Your task to perform on an android device: Show me productivity apps on the Play Store Image 0: 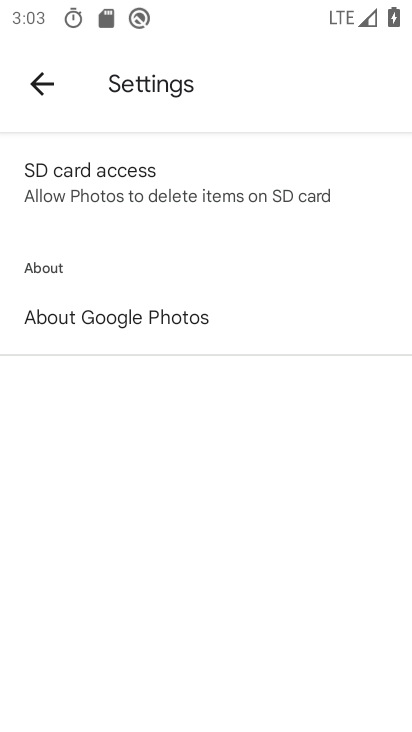
Step 0: press home button
Your task to perform on an android device: Show me productivity apps on the Play Store Image 1: 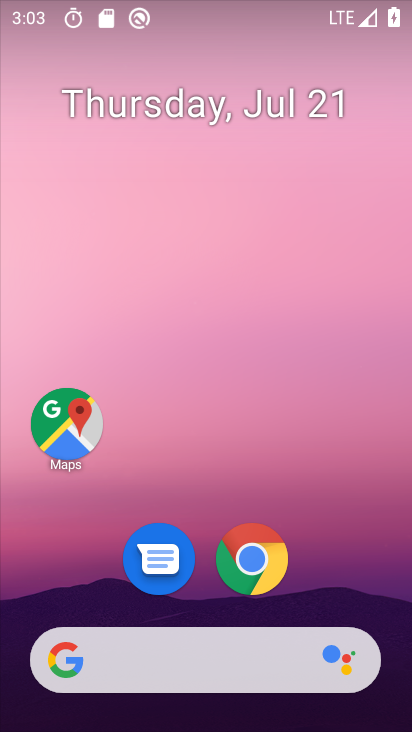
Step 1: drag from (378, 585) to (371, 93)
Your task to perform on an android device: Show me productivity apps on the Play Store Image 2: 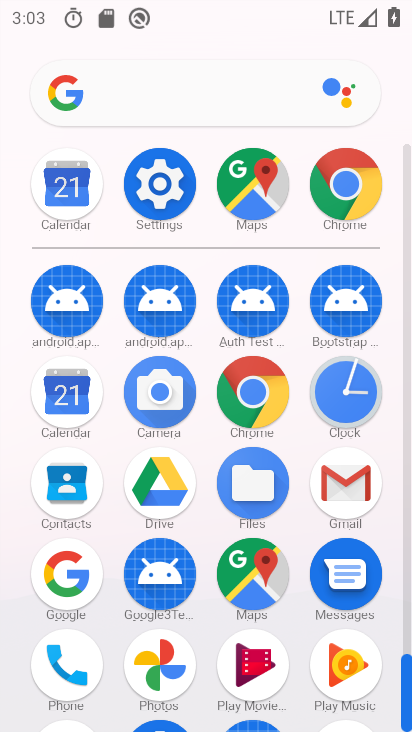
Step 2: drag from (387, 535) to (393, 344)
Your task to perform on an android device: Show me productivity apps on the Play Store Image 3: 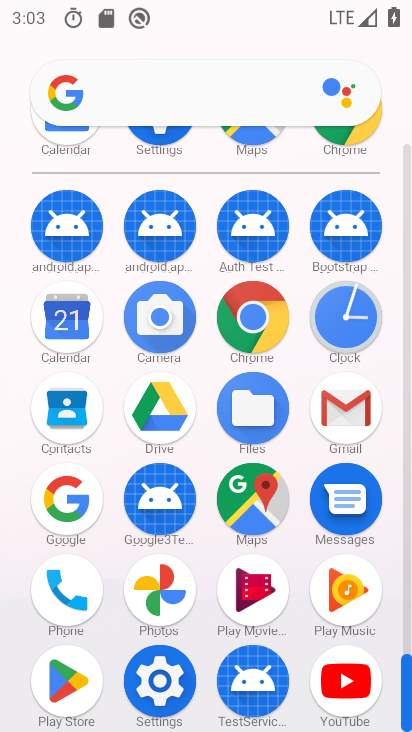
Step 3: click (73, 675)
Your task to perform on an android device: Show me productivity apps on the Play Store Image 4: 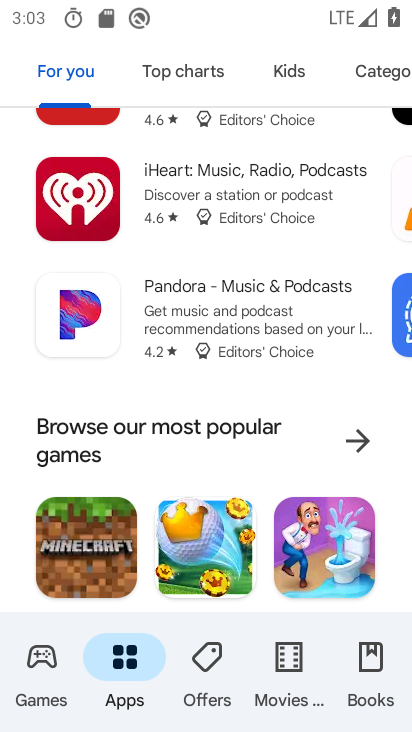
Step 4: task complete